Your task to perform on an android device: open app "Microsoft Excel" Image 0: 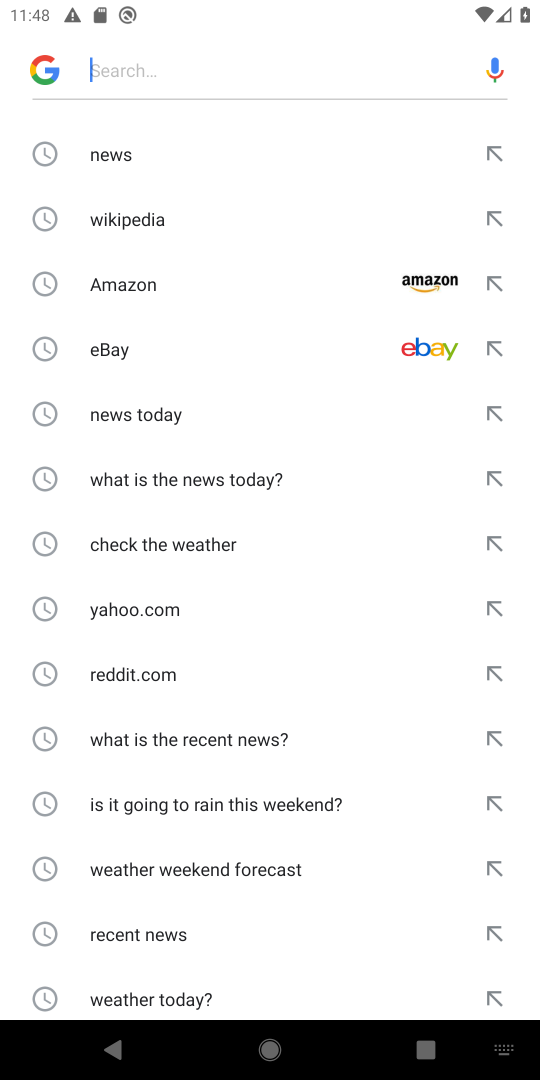
Step 0: press home button
Your task to perform on an android device: open app "Microsoft Excel" Image 1: 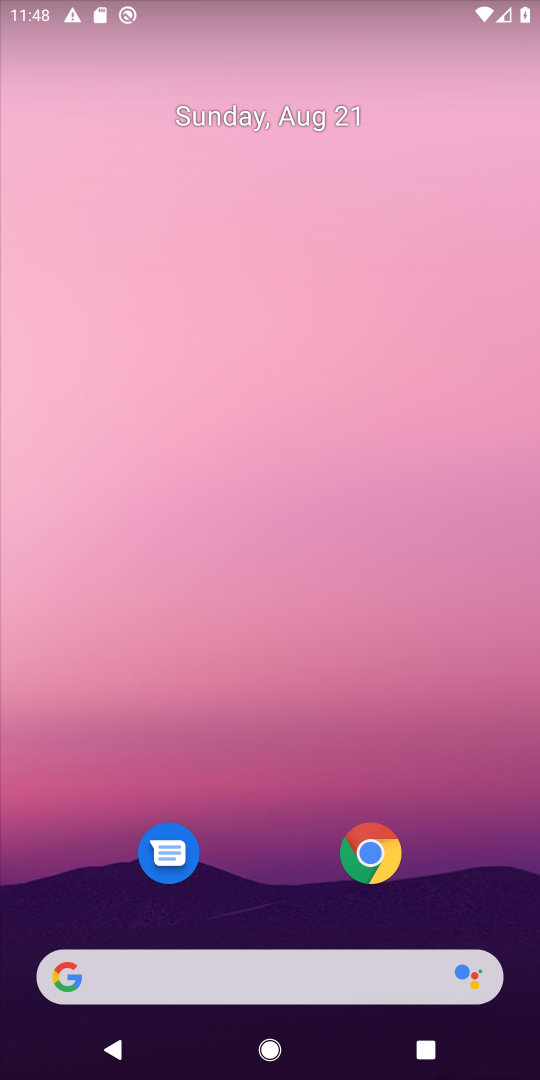
Step 1: drag from (234, 921) to (235, 297)
Your task to perform on an android device: open app "Microsoft Excel" Image 2: 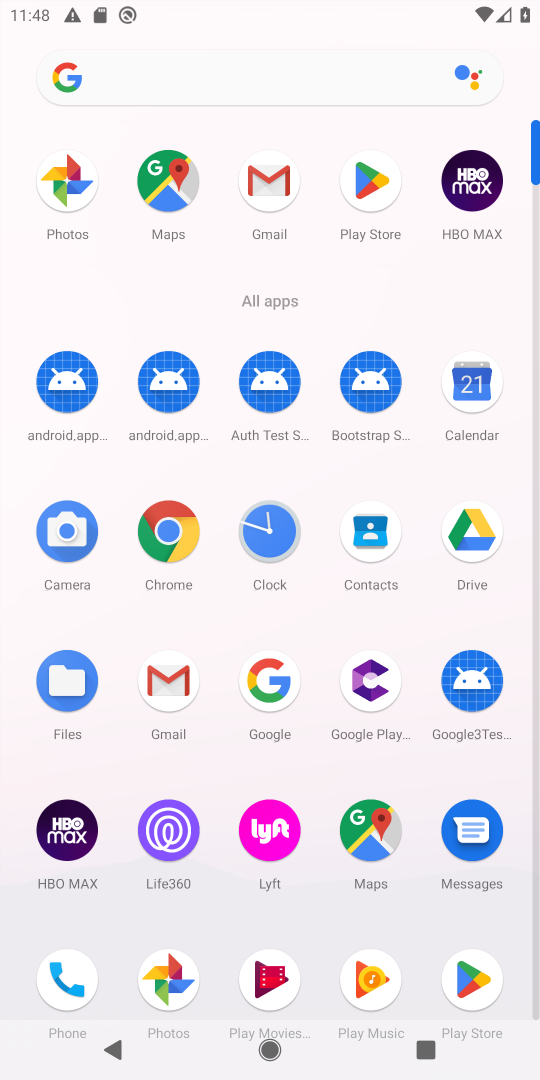
Step 2: click (363, 180)
Your task to perform on an android device: open app "Microsoft Excel" Image 3: 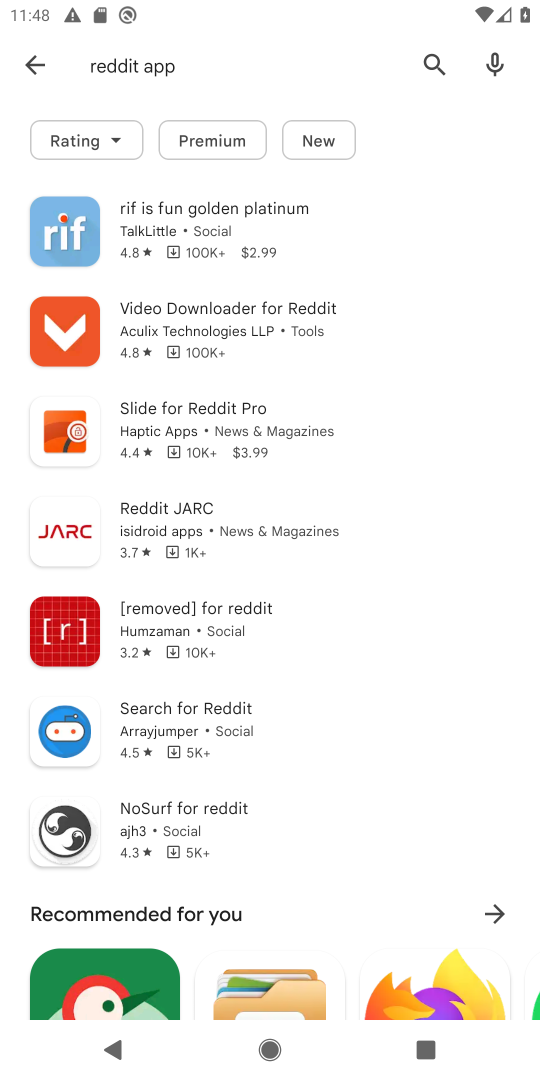
Step 3: click (23, 52)
Your task to perform on an android device: open app "Microsoft Excel" Image 4: 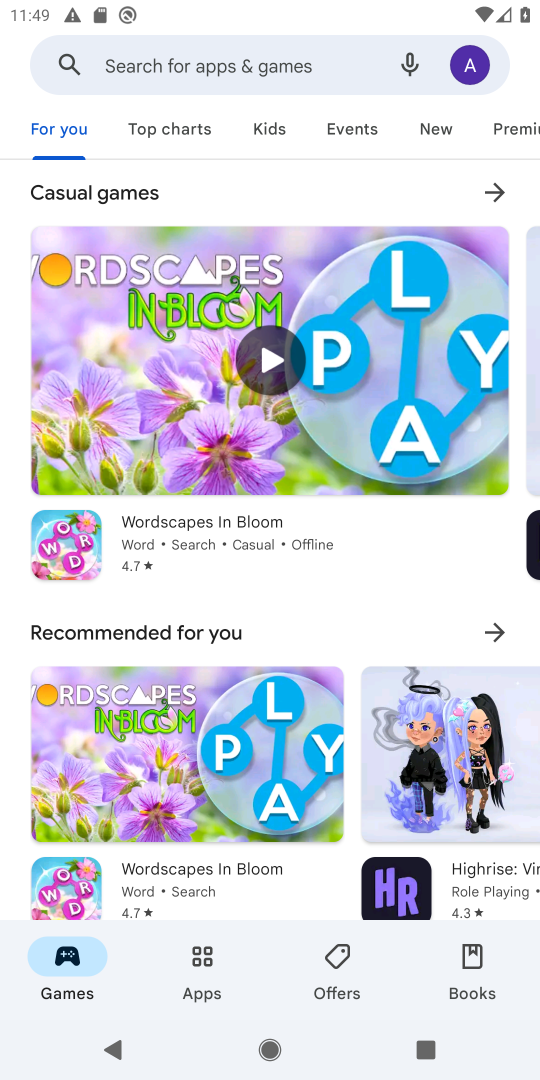
Step 4: click (278, 46)
Your task to perform on an android device: open app "Microsoft Excel" Image 5: 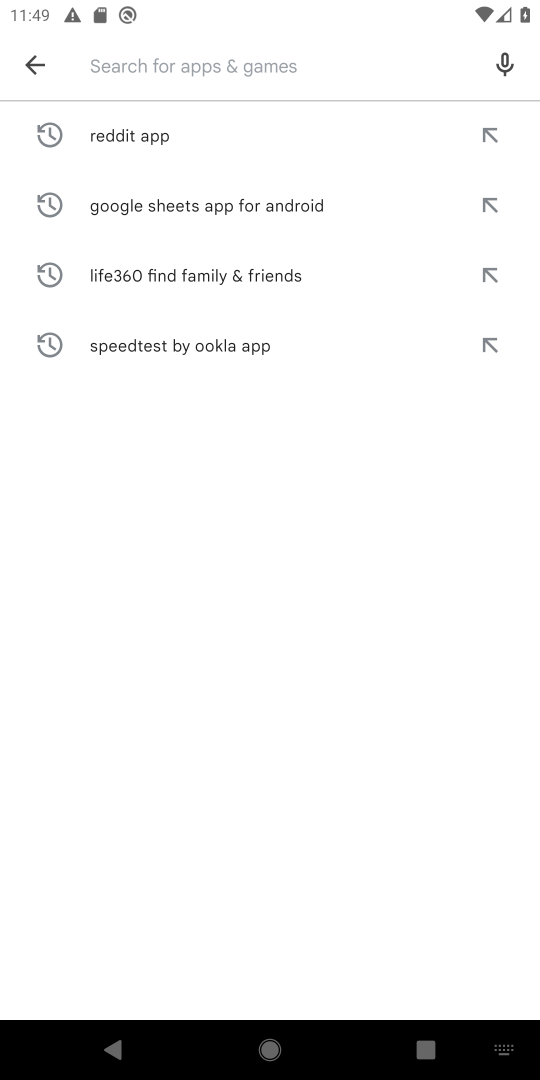
Step 5: type "Microsoft Excel "
Your task to perform on an android device: open app "Microsoft Excel" Image 6: 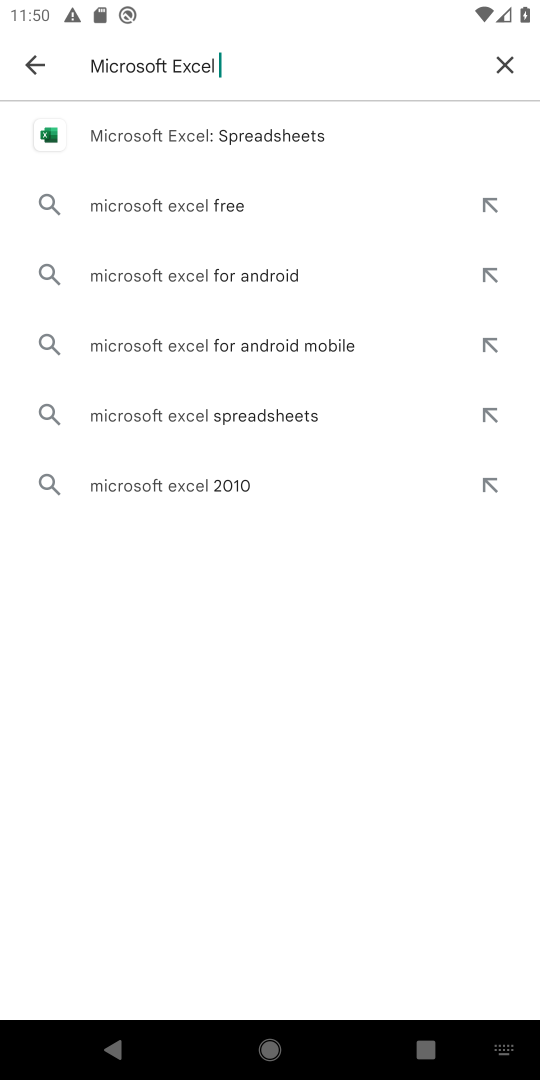
Step 6: click (119, 122)
Your task to perform on an android device: open app "Microsoft Excel" Image 7: 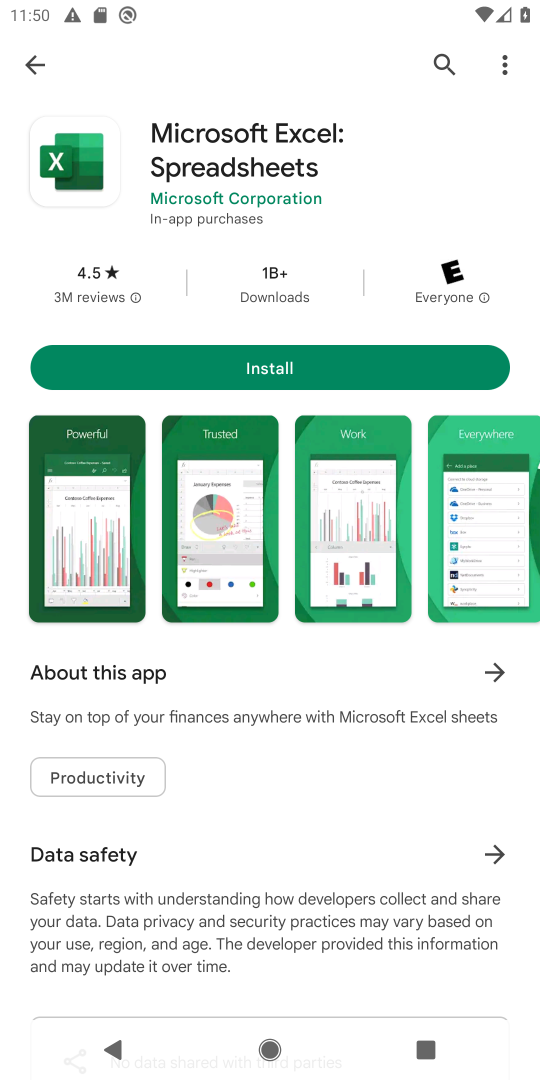
Step 7: click (355, 355)
Your task to perform on an android device: open app "Microsoft Excel" Image 8: 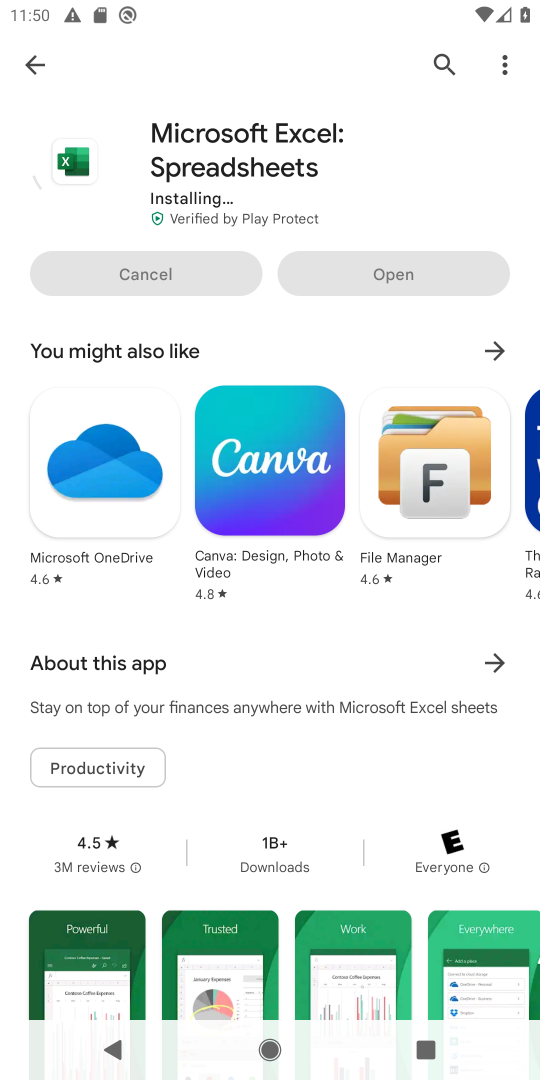
Step 8: task complete